Your task to perform on an android device: delete browsing data in the chrome app Image 0: 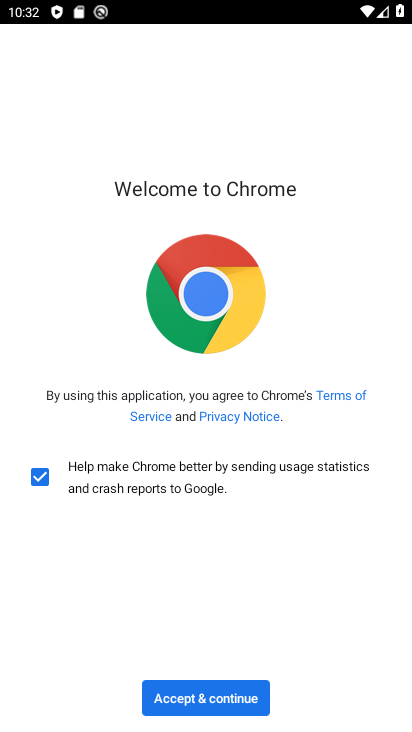
Step 0: click (191, 696)
Your task to perform on an android device: delete browsing data in the chrome app Image 1: 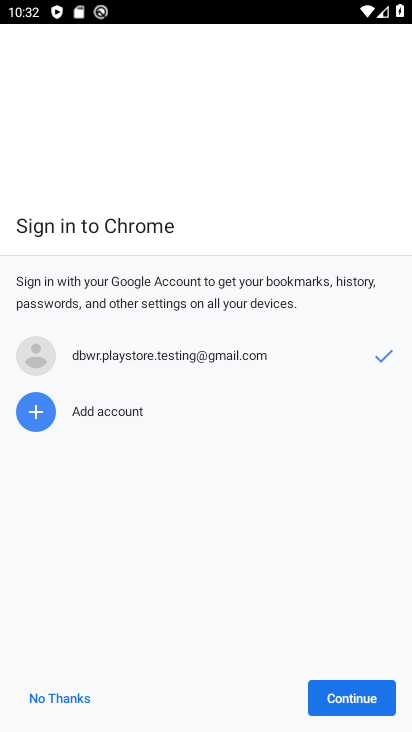
Step 1: click (338, 698)
Your task to perform on an android device: delete browsing data in the chrome app Image 2: 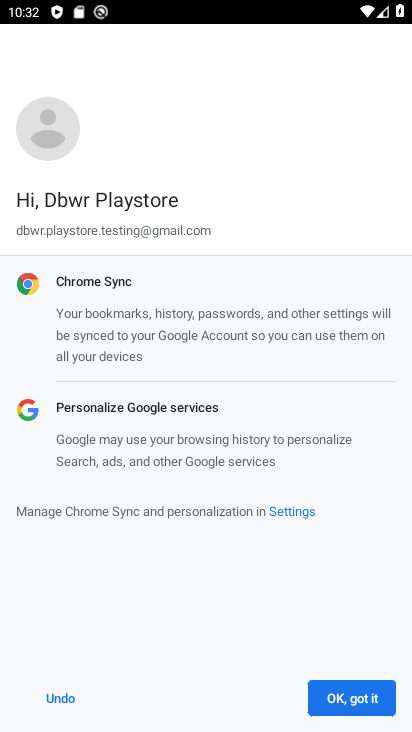
Step 2: click (339, 698)
Your task to perform on an android device: delete browsing data in the chrome app Image 3: 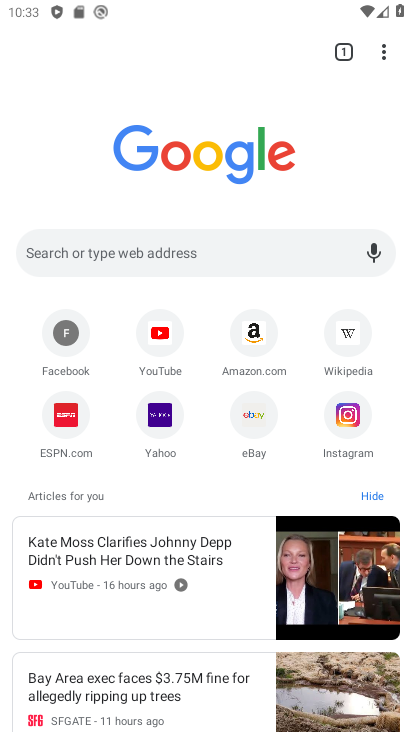
Step 3: click (376, 56)
Your task to perform on an android device: delete browsing data in the chrome app Image 4: 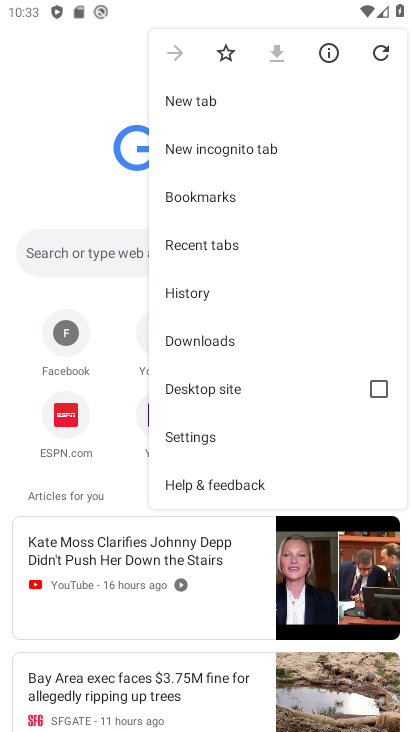
Step 4: click (225, 297)
Your task to perform on an android device: delete browsing data in the chrome app Image 5: 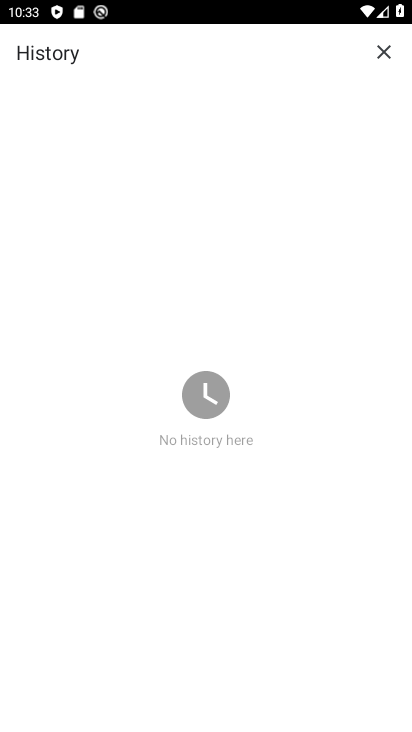
Step 5: task complete